Your task to perform on an android device: Open eBay Image 0: 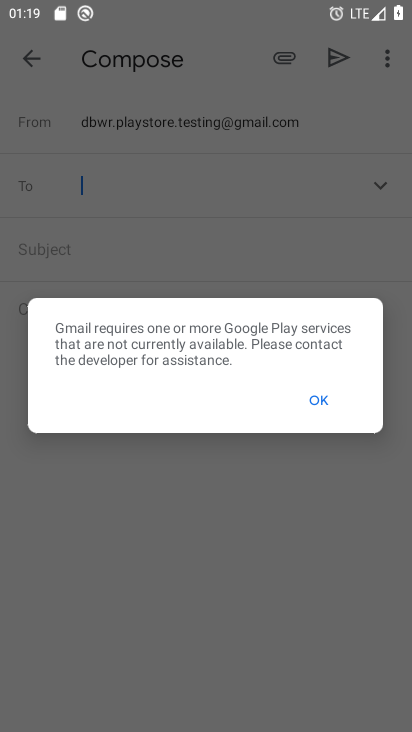
Step 0: press home button
Your task to perform on an android device: Open eBay Image 1: 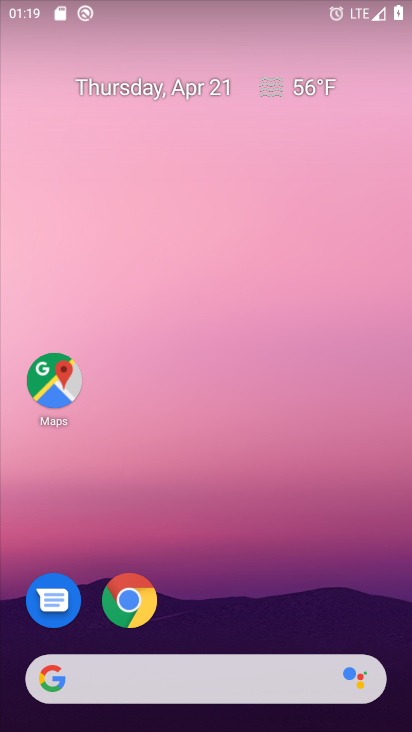
Step 1: click (268, 684)
Your task to perform on an android device: Open eBay Image 2: 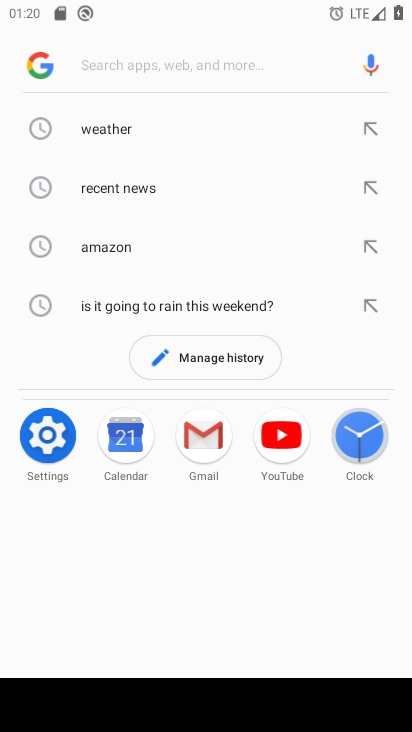
Step 2: type "eBay"
Your task to perform on an android device: Open eBay Image 3: 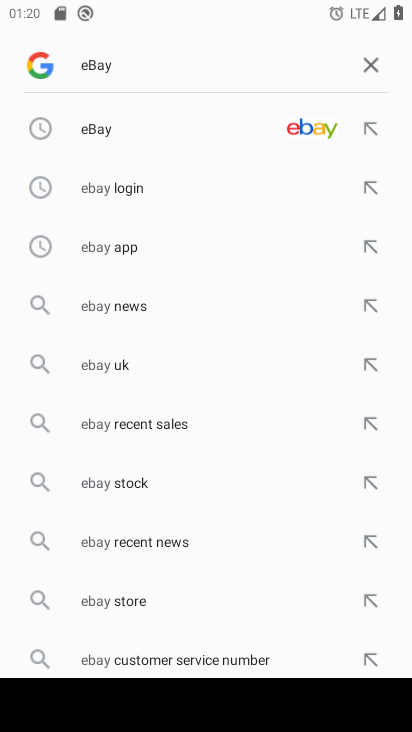
Step 3: click (301, 127)
Your task to perform on an android device: Open eBay Image 4: 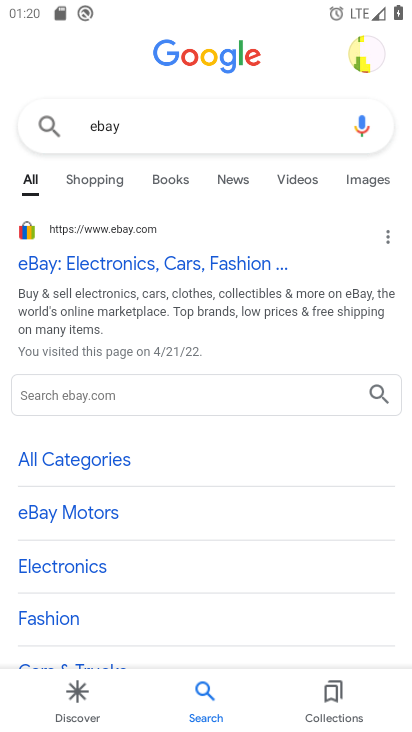
Step 4: click (222, 270)
Your task to perform on an android device: Open eBay Image 5: 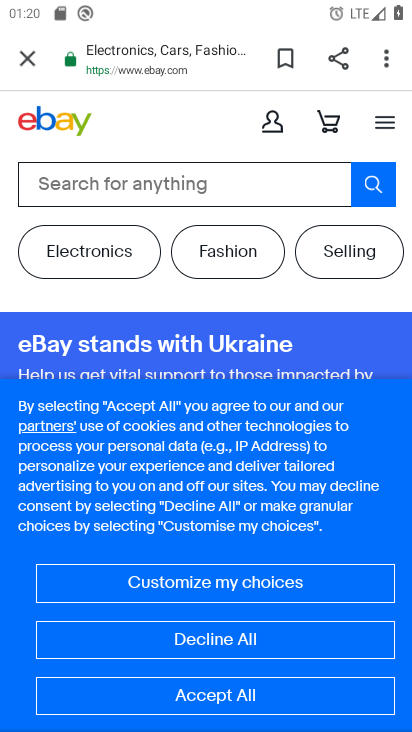
Step 5: task complete